Your task to perform on an android device: Go to Android settings Image 0: 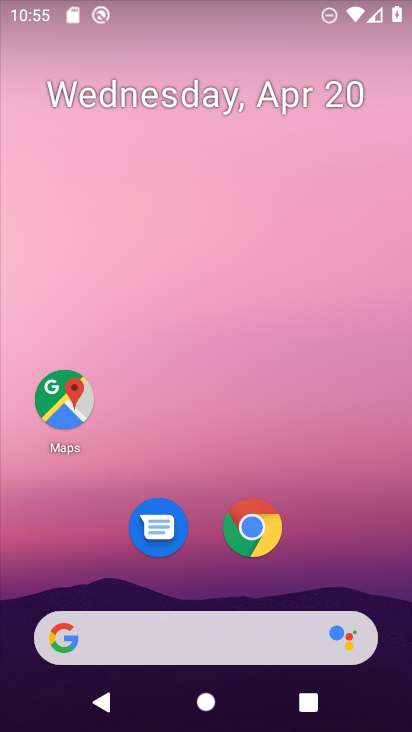
Step 0: drag from (186, 592) to (315, 6)
Your task to perform on an android device: Go to Android settings Image 1: 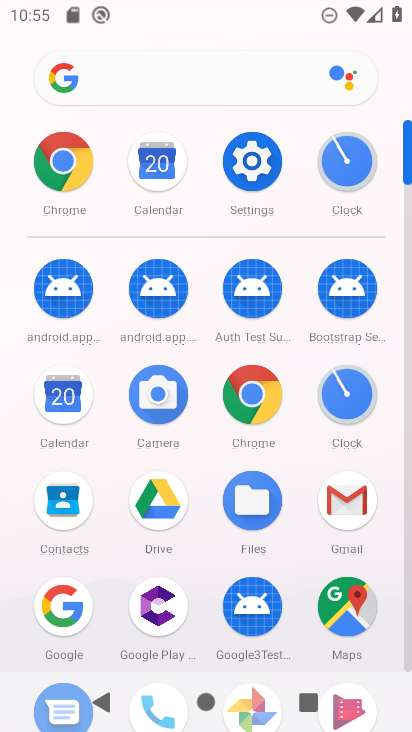
Step 1: click (245, 159)
Your task to perform on an android device: Go to Android settings Image 2: 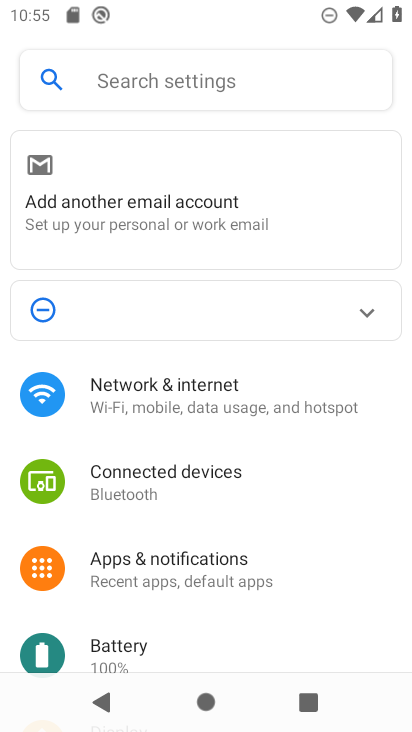
Step 2: drag from (160, 614) to (268, 3)
Your task to perform on an android device: Go to Android settings Image 3: 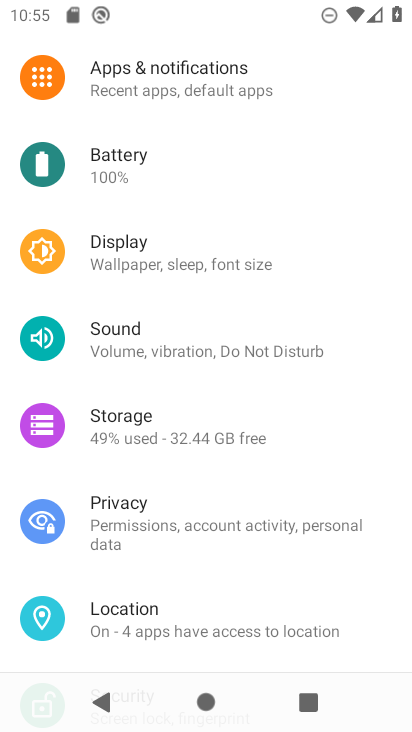
Step 3: drag from (152, 558) to (263, 71)
Your task to perform on an android device: Go to Android settings Image 4: 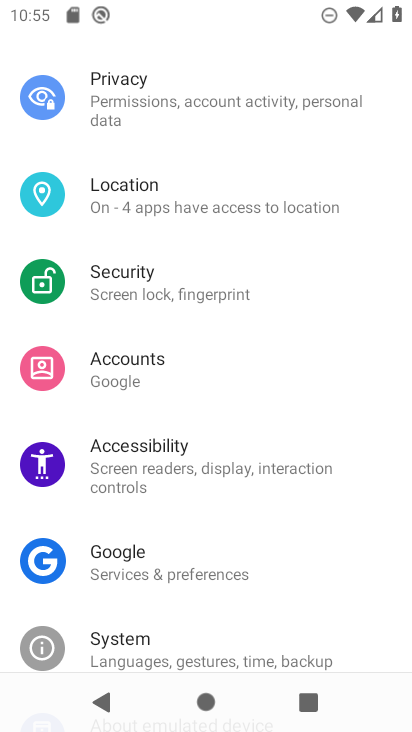
Step 4: drag from (163, 566) to (246, 65)
Your task to perform on an android device: Go to Android settings Image 5: 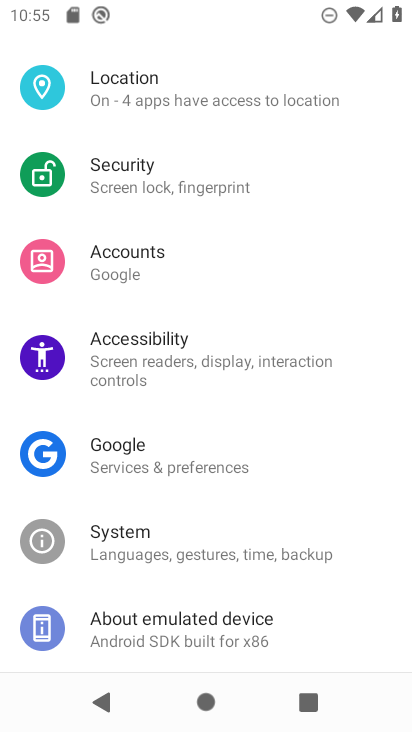
Step 5: click (121, 623)
Your task to perform on an android device: Go to Android settings Image 6: 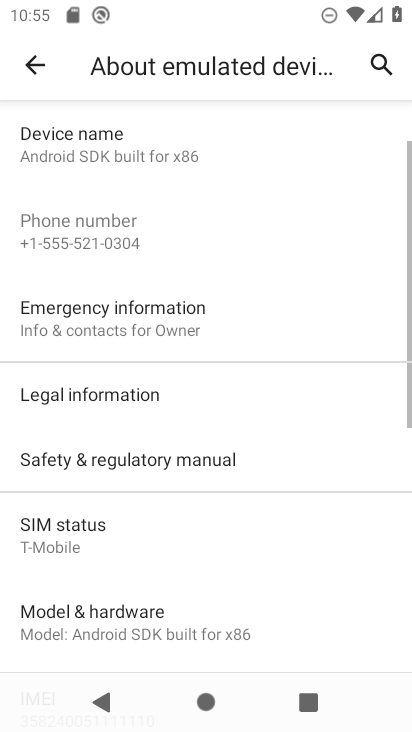
Step 6: drag from (98, 545) to (229, 127)
Your task to perform on an android device: Go to Android settings Image 7: 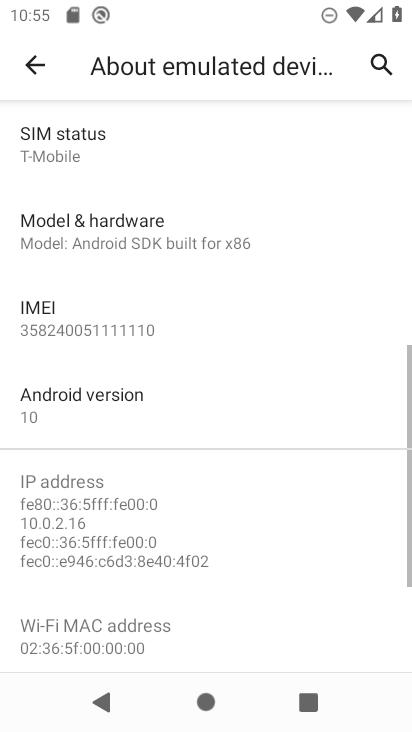
Step 7: click (103, 415)
Your task to perform on an android device: Go to Android settings Image 8: 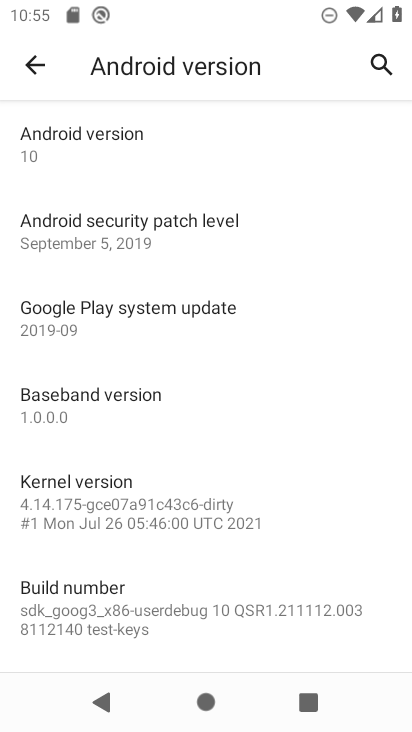
Step 8: task complete